Your task to perform on an android device: Open Wikipedia Image 0: 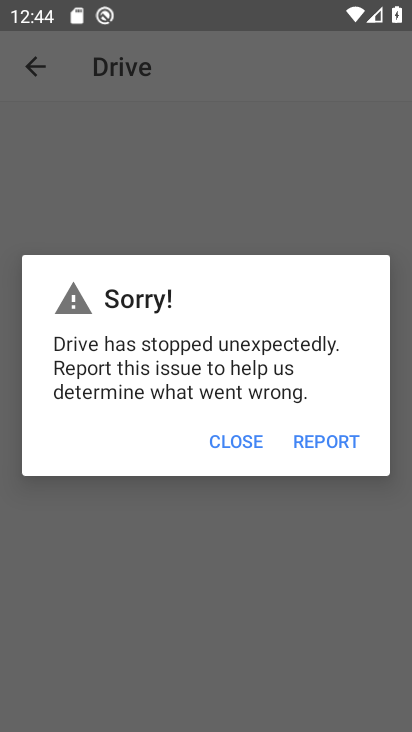
Step 0: press home button
Your task to perform on an android device: Open Wikipedia Image 1: 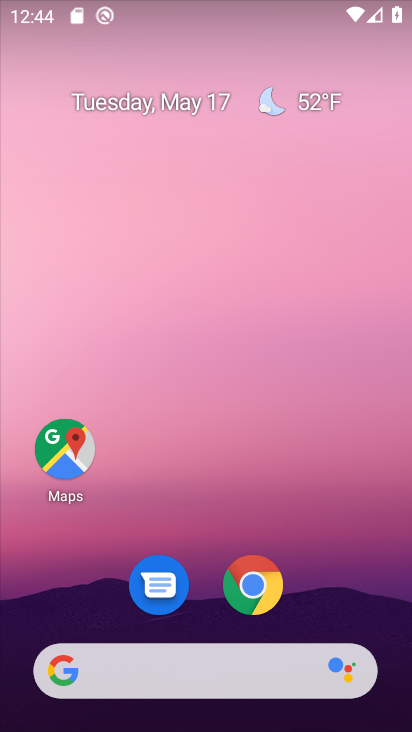
Step 1: click (263, 587)
Your task to perform on an android device: Open Wikipedia Image 2: 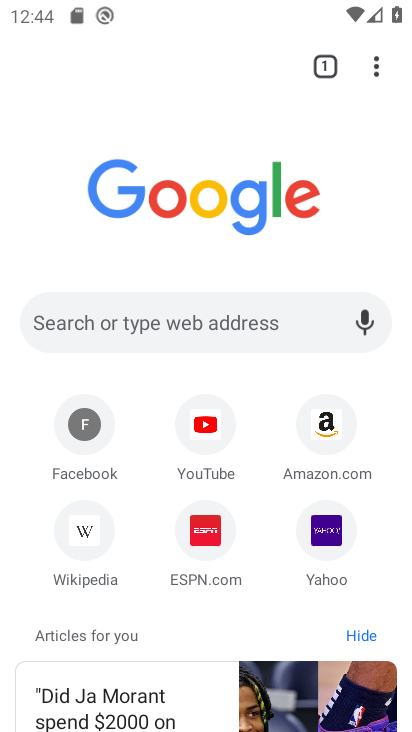
Step 2: click (77, 527)
Your task to perform on an android device: Open Wikipedia Image 3: 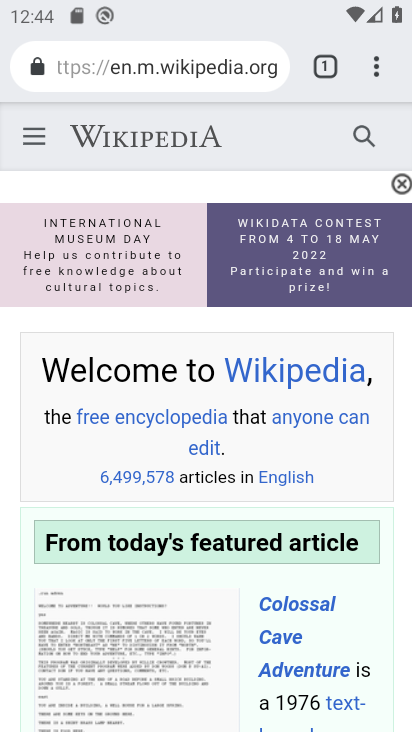
Step 3: task complete